Your task to perform on an android device: toggle airplane mode Image 0: 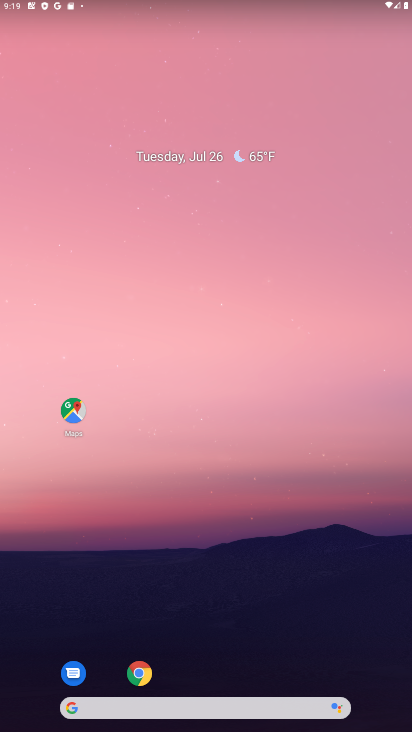
Step 0: drag from (340, 646) to (358, 34)
Your task to perform on an android device: toggle airplane mode Image 1: 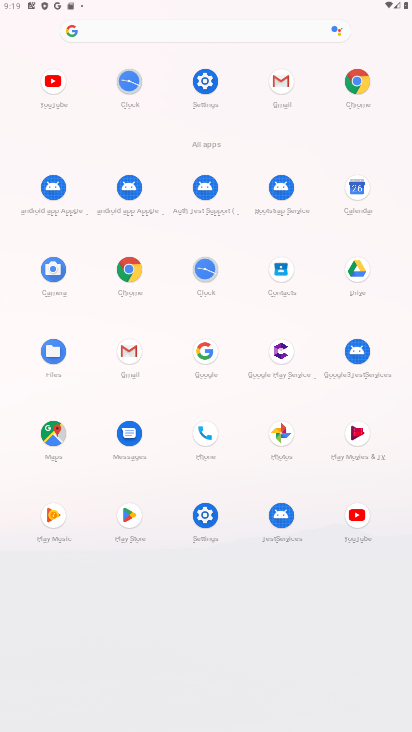
Step 1: click (203, 513)
Your task to perform on an android device: toggle airplane mode Image 2: 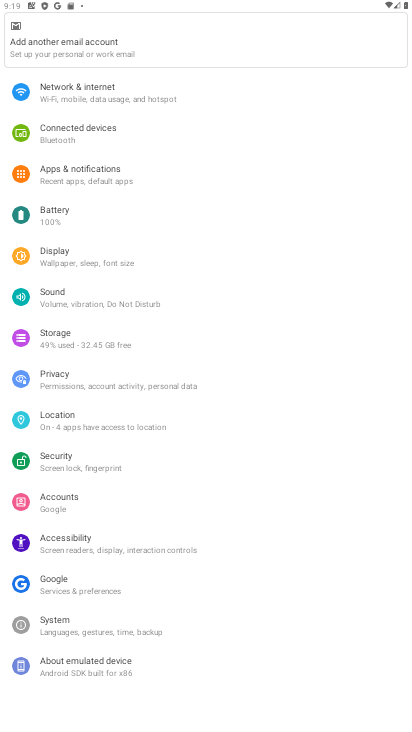
Step 2: click (63, 89)
Your task to perform on an android device: toggle airplane mode Image 3: 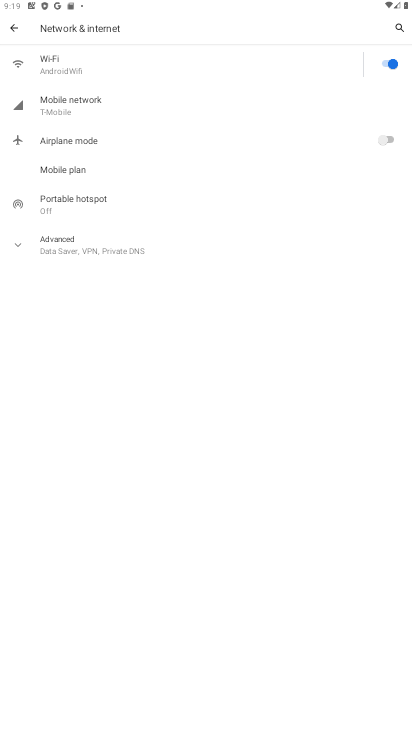
Step 3: click (394, 139)
Your task to perform on an android device: toggle airplane mode Image 4: 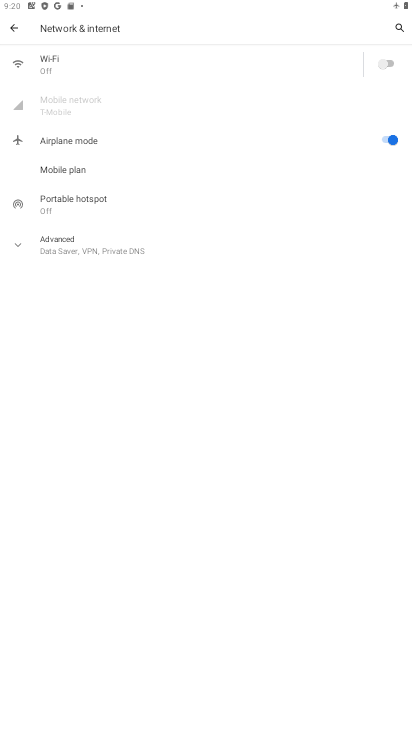
Step 4: task complete